Your task to perform on an android device: toggle priority inbox in the gmail app Image 0: 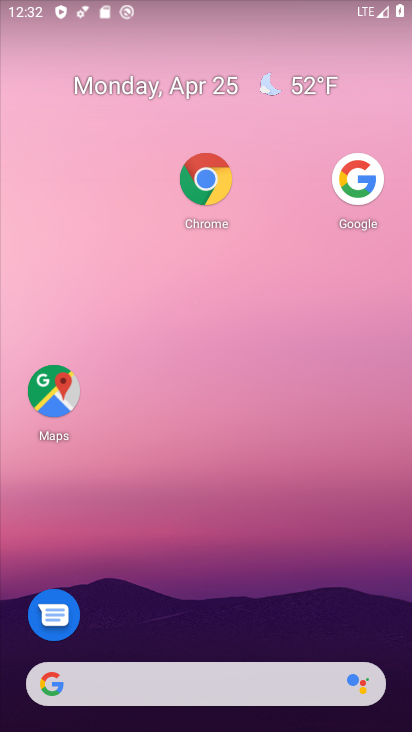
Step 0: drag from (178, 690) to (331, 140)
Your task to perform on an android device: toggle priority inbox in the gmail app Image 1: 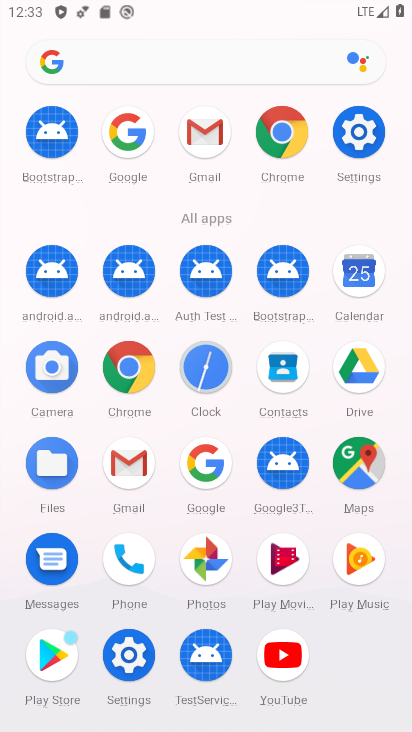
Step 1: click (209, 143)
Your task to perform on an android device: toggle priority inbox in the gmail app Image 2: 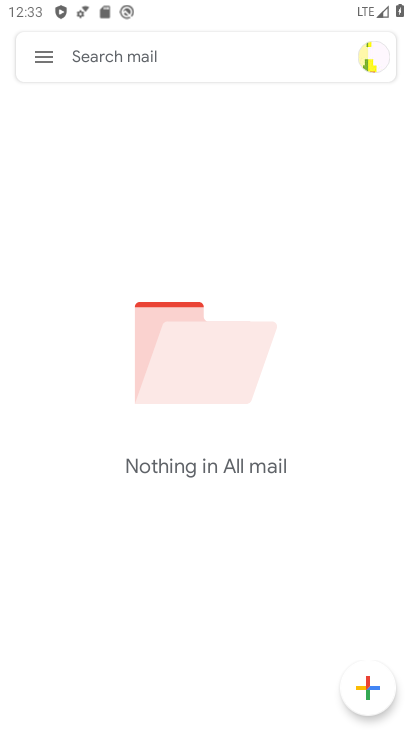
Step 2: click (48, 50)
Your task to perform on an android device: toggle priority inbox in the gmail app Image 3: 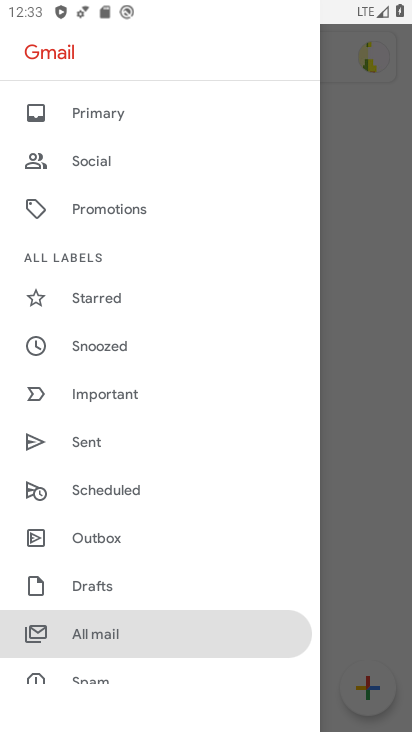
Step 3: drag from (120, 662) to (262, 185)
Your task to perform on an android device: toggle priority inbox in the gmail app Image 4: 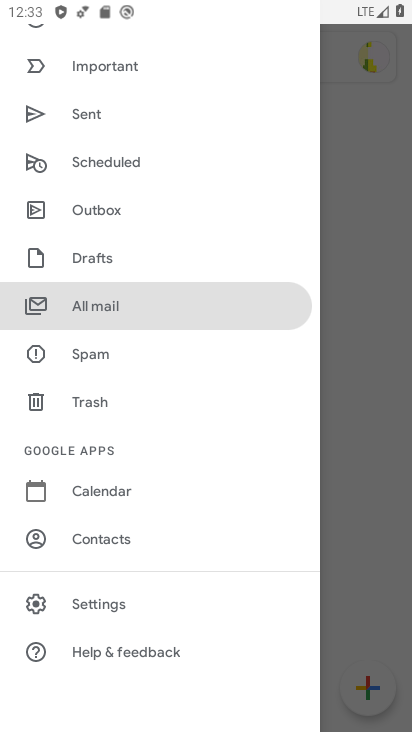
Step 4: click (114, 606)
Your task to perform on an android device: toggle priority inbox in the gmail app Image 5: 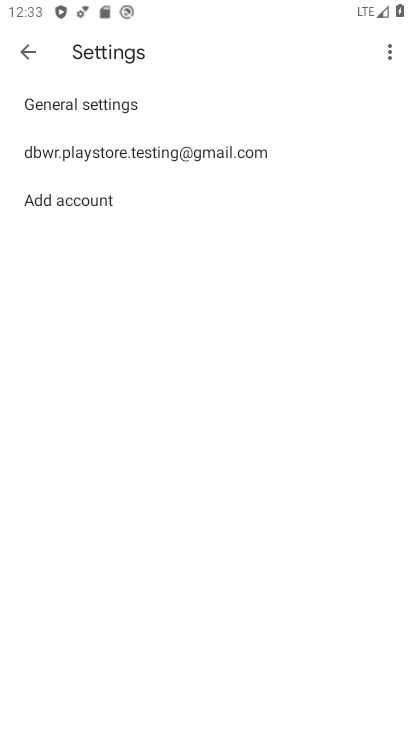
Step 5: click (225, 149)
Your task to perform on an android device: toggle priority inbox in the gmail app Image 6: 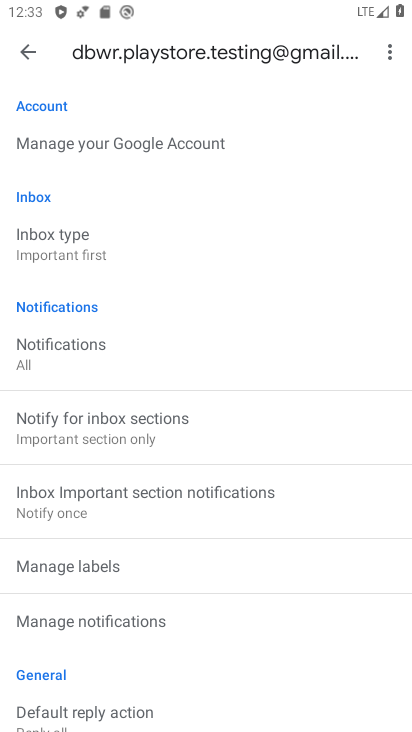
Step 6: drag from (268, 247) to (191, 589)
Your task to perform on an android device: toggle priority inbox in the gmail app Image 7: 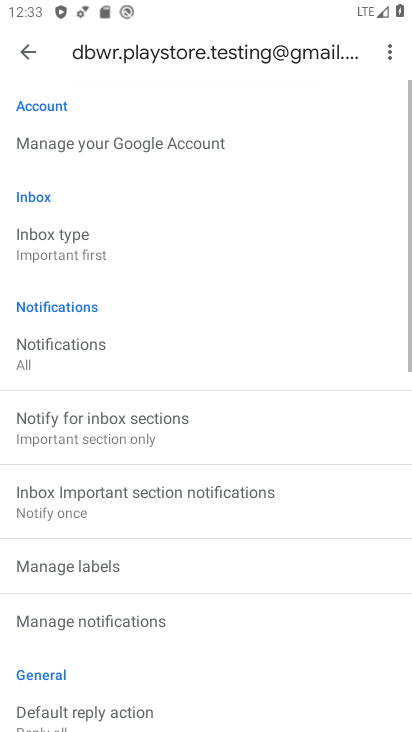
Step 7: click (64, 253)
Your task to perform on an android device: toggle priority inbox in the gmail app Image 8: 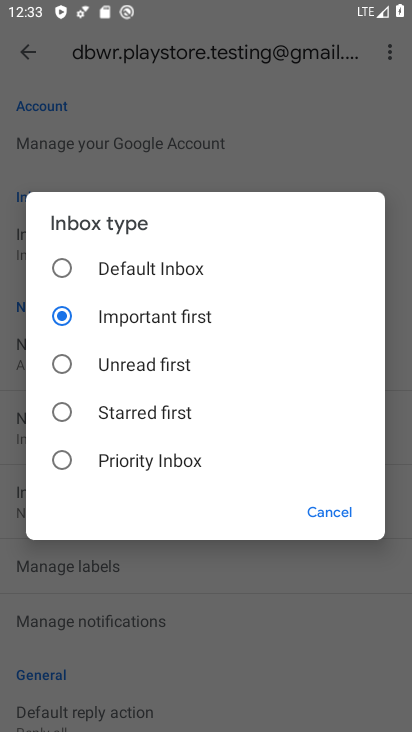
Step 8: click (60, 461)
Your task to perform on an android device: toggle priority inbox in the gmail app Image 9: 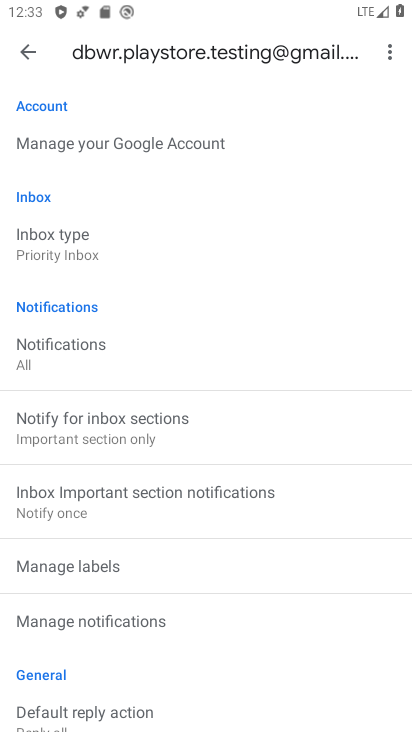
Step 9: task complete